Your task to perform on an android device: toggle translation in the chrome app Image 0: 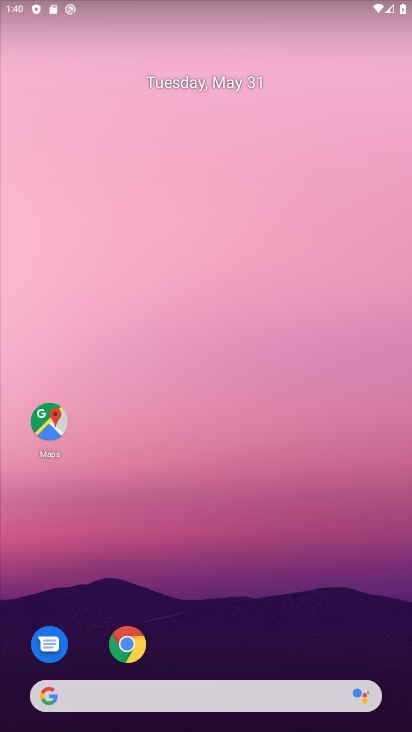
Step 0: click (149, 641)
Your task to perform on an android device: toggle translation in the chrome app Image 1: 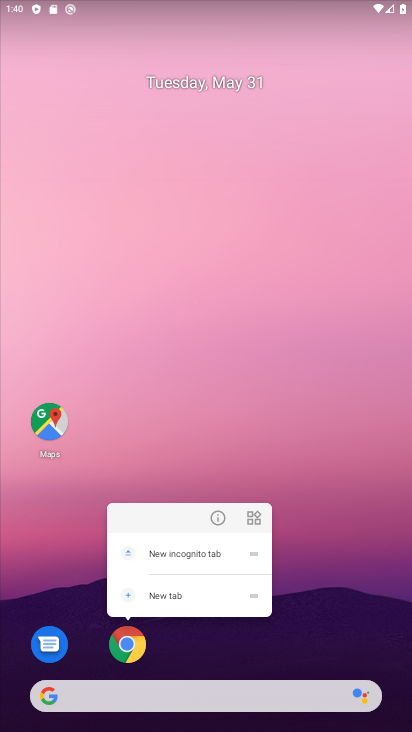
Step 1: click (149, 641)
Your task to perform on an android device: toggle translation in the chrome app Image 2: 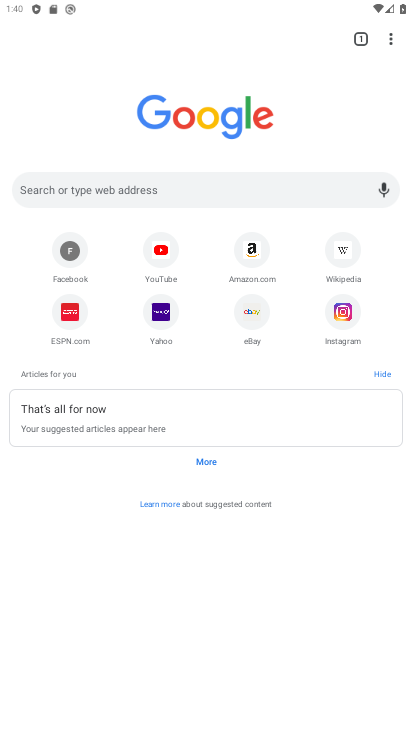
Step 2: drag from (392, 29) to (223, 376)
Your task to perform on an android device: toggle translation in the chrome app Image 3: 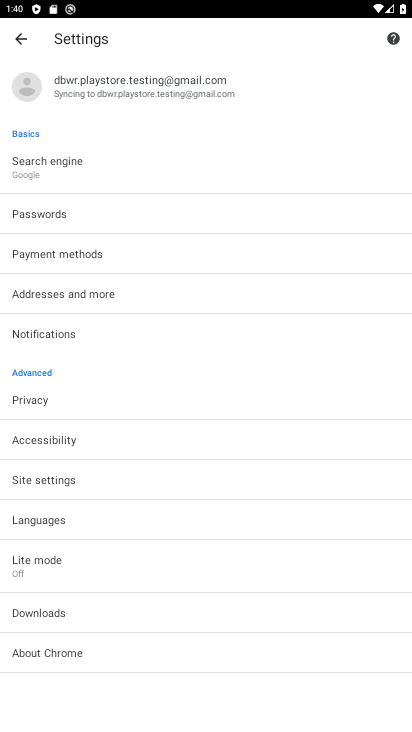
Step 3: click (98, 521)
Your task to perform on an android device: toggle translation in the chrome app Image 4: 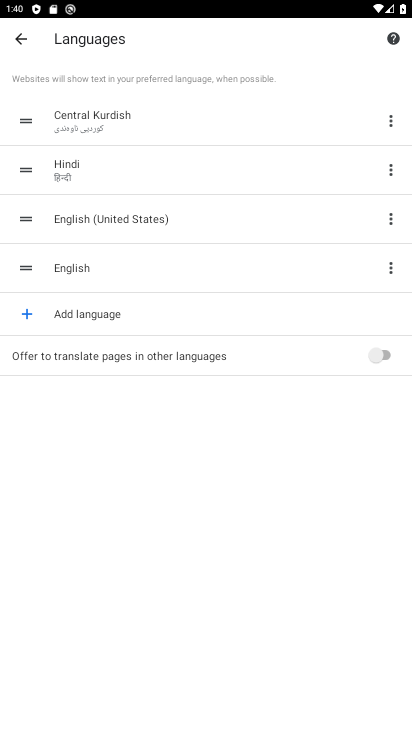
Step 4: click (336, 353)
Your task to perform on an android device: toggle translation in the chrome app Image 5: 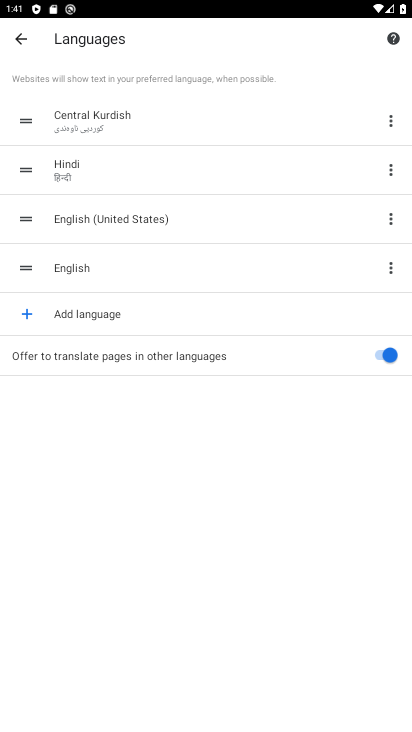
Step 5: task complete